Your task to perform on an android device: Open battery settings Image 0: 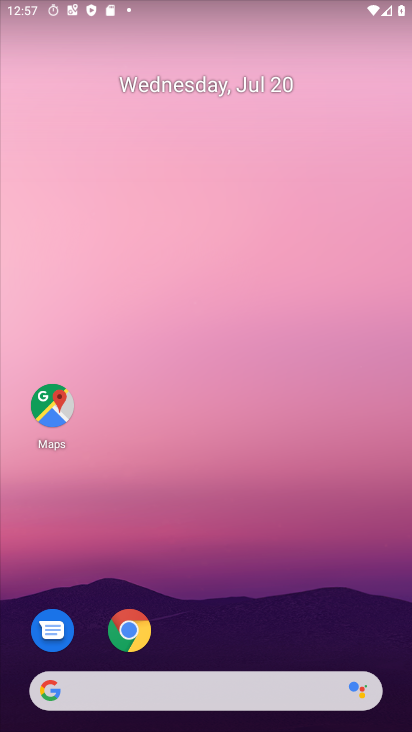
Step 0: drag from (266, 619) to (255, 193)
Your task to perform on an android device: Open battery settings Image 1: 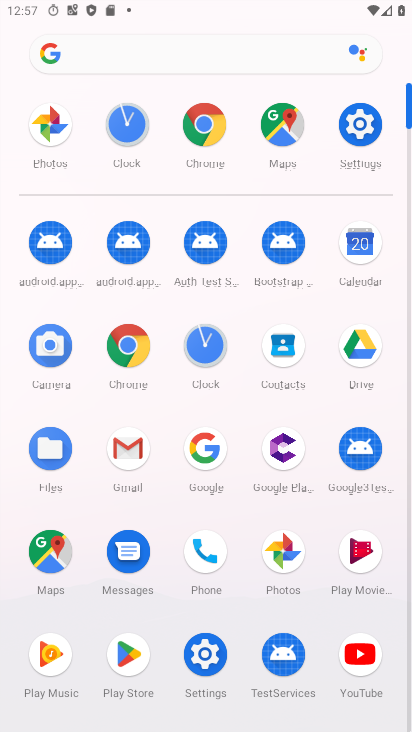
Step 1: click (361, 120)
Your task to perform on an android device: Open battery settings Image 2: 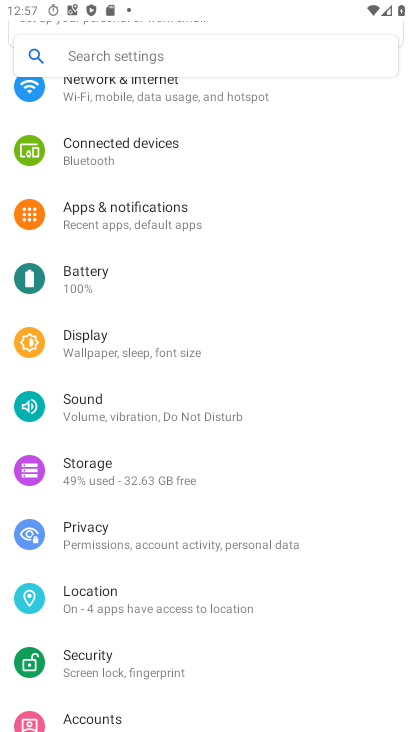
Step 2: click (118, 284)
Your task to perform on an android device: Open battery settings Image 3: 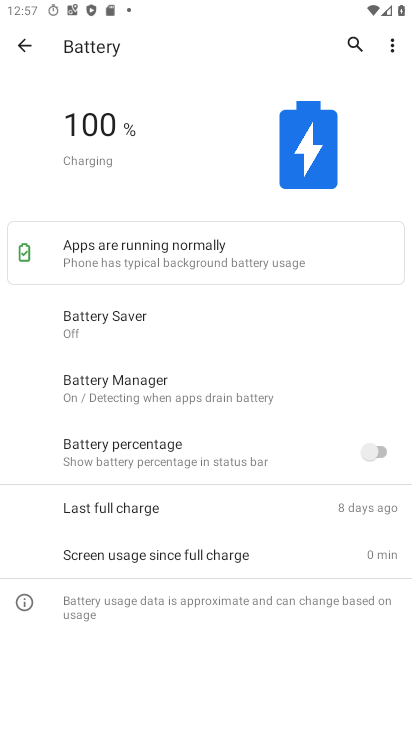
Step 3: task complete